Your task to perform on an android device: turn notification dots off Image 0: 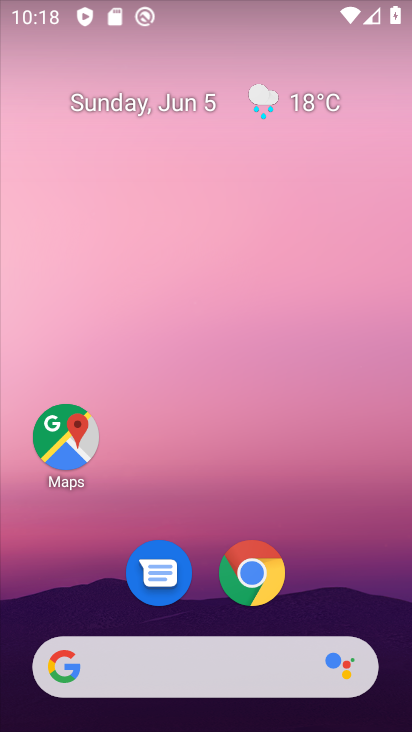
Step 0: drag from (92, 617) to (180, 66)
Your task to perform on an android device: turn notification dots off Image 1: 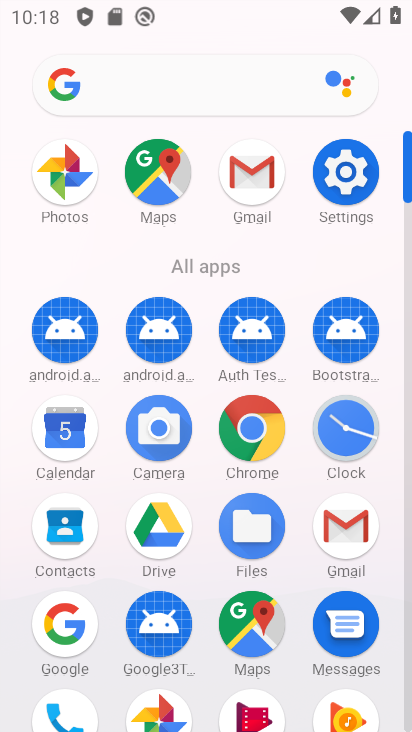
Step 1: drag from (131, 579) to (248, 118)
Your task to perform on an android device: turn notification dots off Image 2: 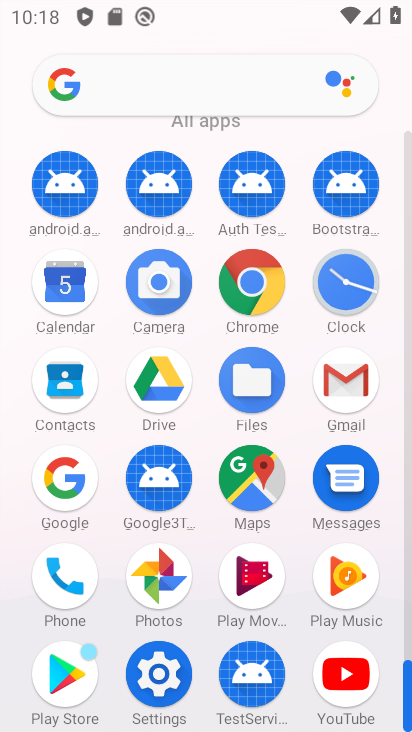
Step 2: click (168, 681)
Your task to perform on an android device: turn notification dots off Image 3: 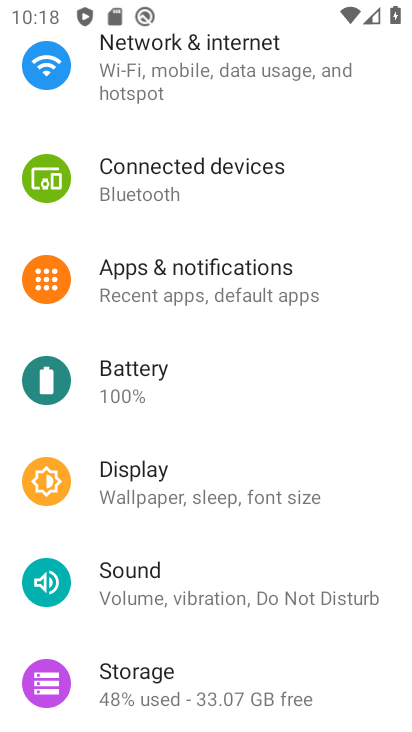
Step 3: click (175, 265)
Your task to perform on an android device: turn notification dots off Image 4: 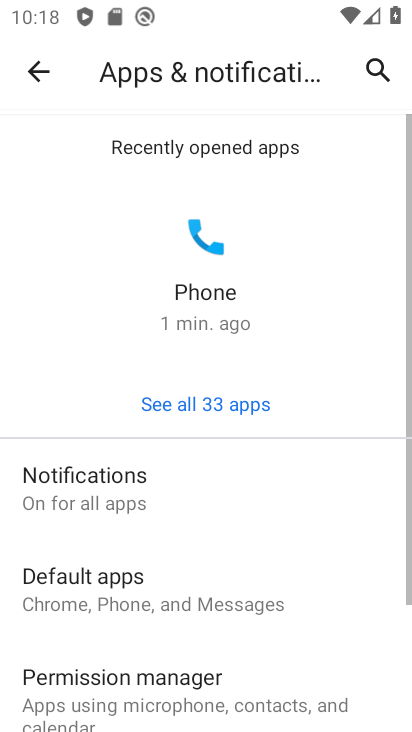
Step 4: drag from (284, 629) to (411, 75)
Your task to perform on an android device: turn notification dots off Image 5: 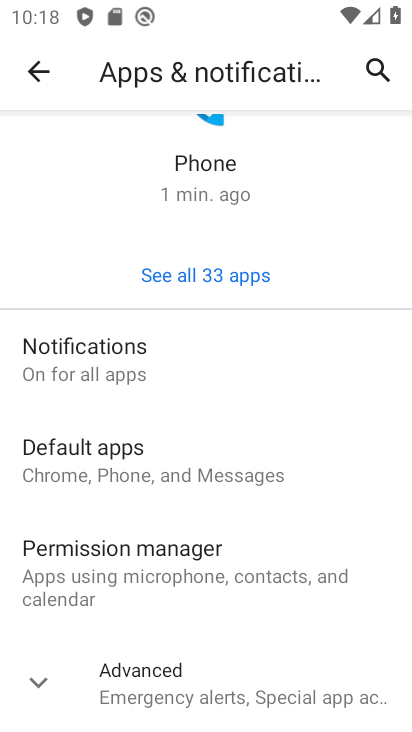
Step 5: drag from (157, 688) to (290, 300)
Your task to perform on an android device: turn notification dots off Image 6: 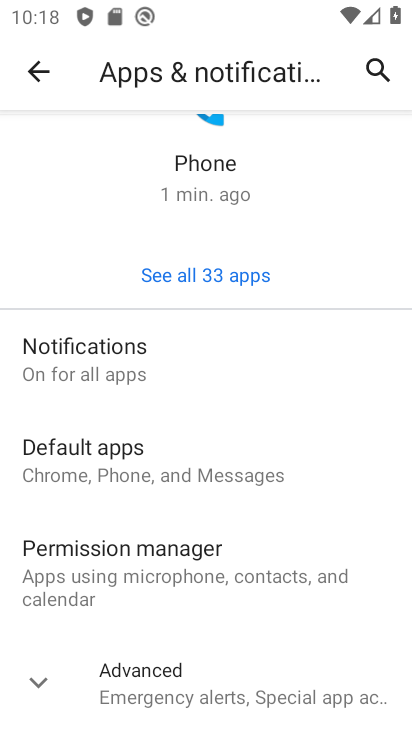
Step 6: click (241, 686)
Your task to perform on an android device: turn notification dots off Image 7: 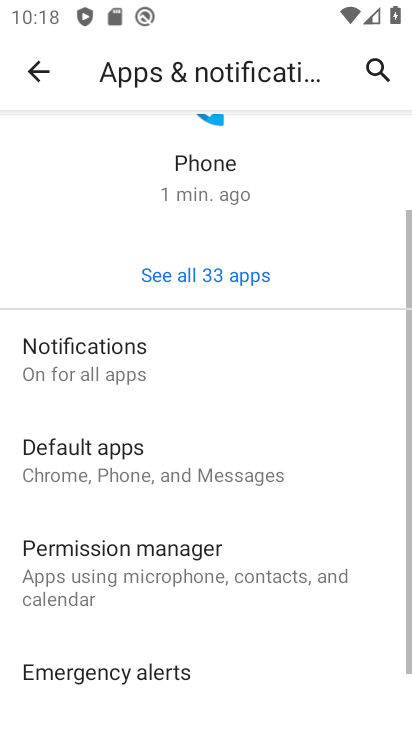
Step 7: drag from (217, 669) to (329, 201)
Your task to perform on an android device: turn notification dots off Image 8: 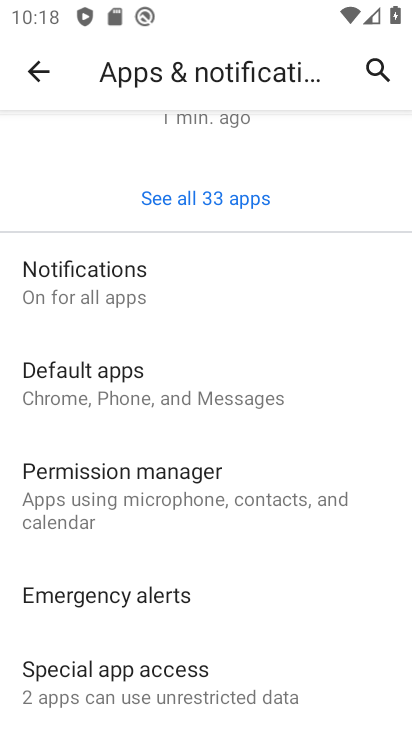
Step 8: click (184, 291)
Your task to perform on an android device: turn notification dots off Image 9: 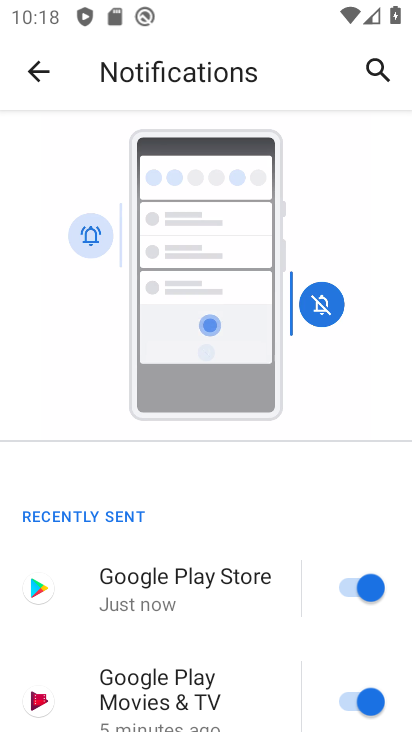
Step 9: drag from (226, 556) to (365, 121)
Your task to perform on an android device: turn notification dots off Image 10: 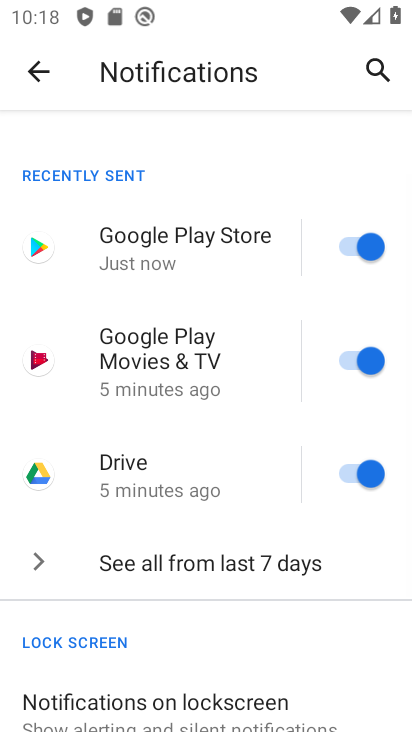
Step 10: drag from (191, 716) to (272, 248)
Your task to perform on an android device: turn notification dots off Image 11: 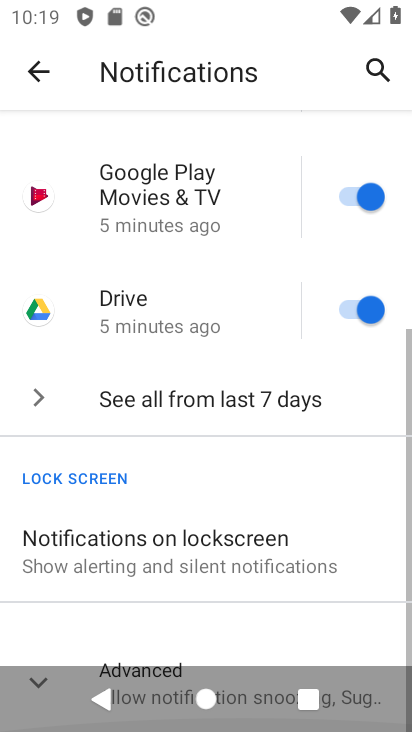
Step 11: click (199, 655)
Your task to perform on an android device: turn notification dots off Image 12: 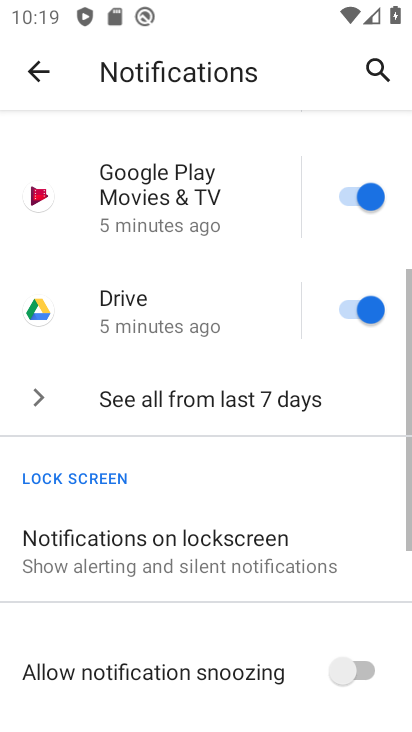
Step 12: drag from (214, 578) to (299, 213)
Your task to perform on an android device: turn notification dots off Image 13: 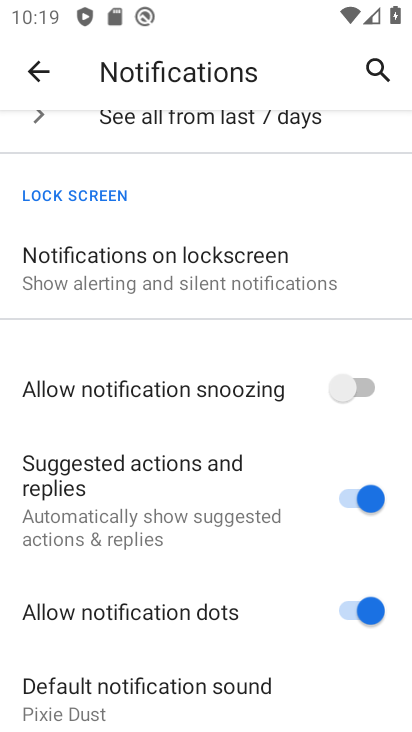
Step 13: click (349, 614)
Your task to perform on an android device: turn notification dots off Image 14: 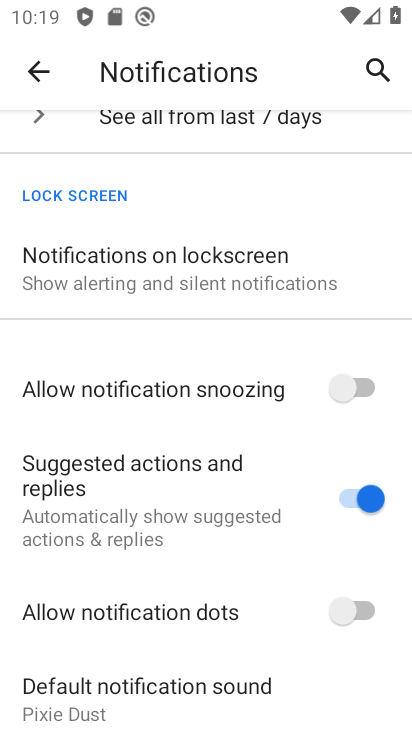
Step 14: task complete